Your task to perform on an android device: turn off data saver in the chrome app Image 0: 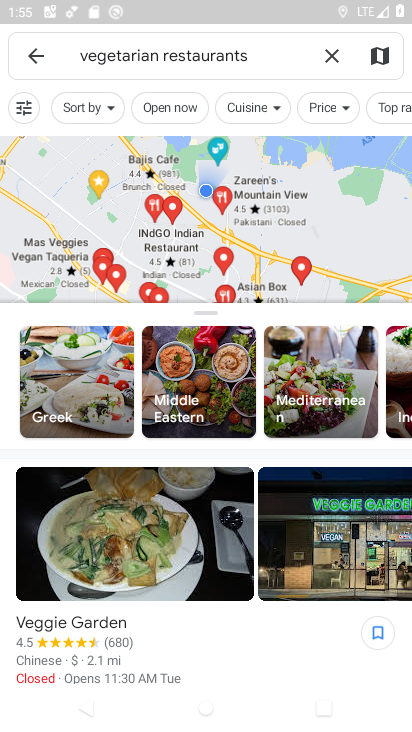
Step 0: press home button
Your task to perform on an android device: turn off data saver in the chrome app Image 1: 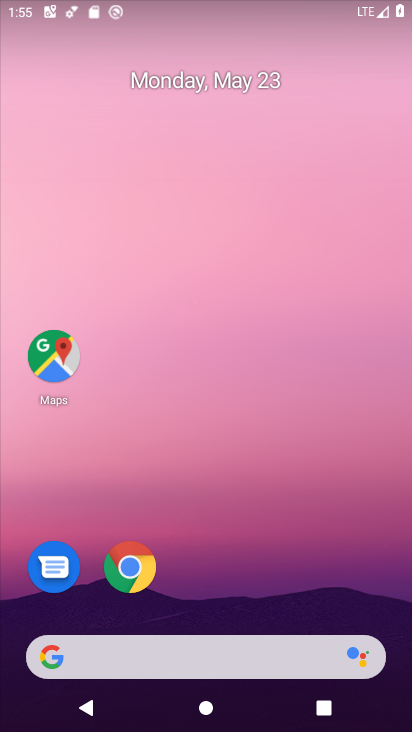
Step 1: drag from (326, 553) to (308, 175)
Your task to perform on an android device: turn off data saver in the chrome app Image 2: 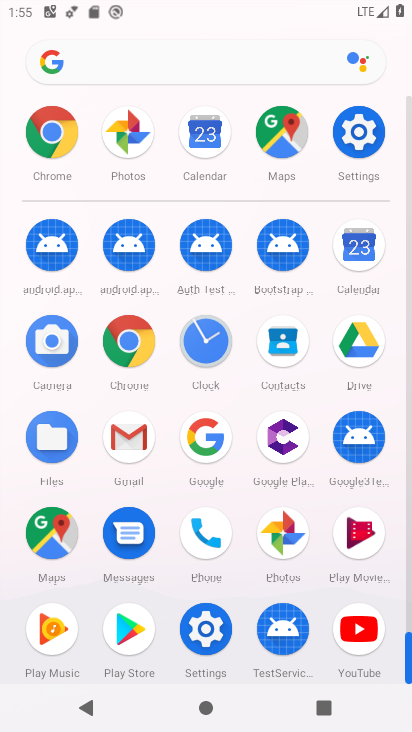
Step 2: click (127, 354)
Your task to perform on an android device: turn off data saver in the chrome app Image 3: 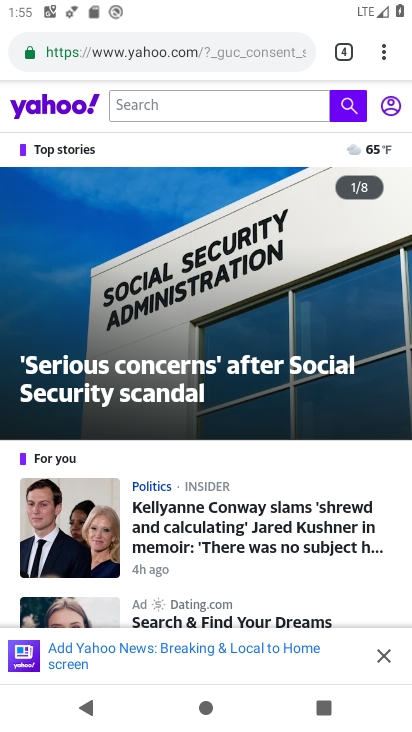
Step 3: click (388, 53)
Your task to perform on an android device: turn off data saver in the chrome app Image 4: 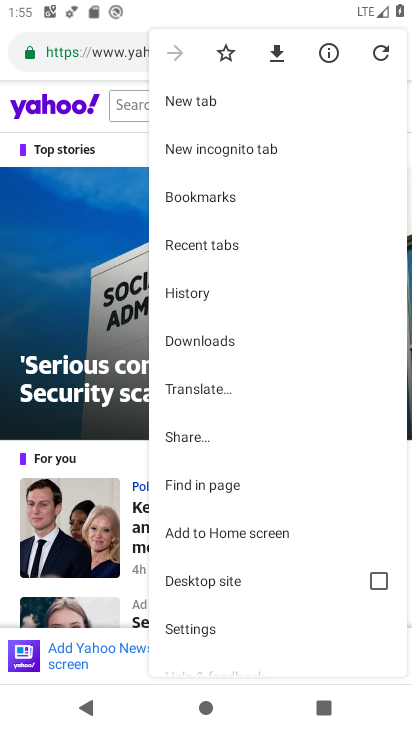
Step 4: click (228, 621)
Your task to perform on an android device: turn off data saver in the chrome app Image 5: 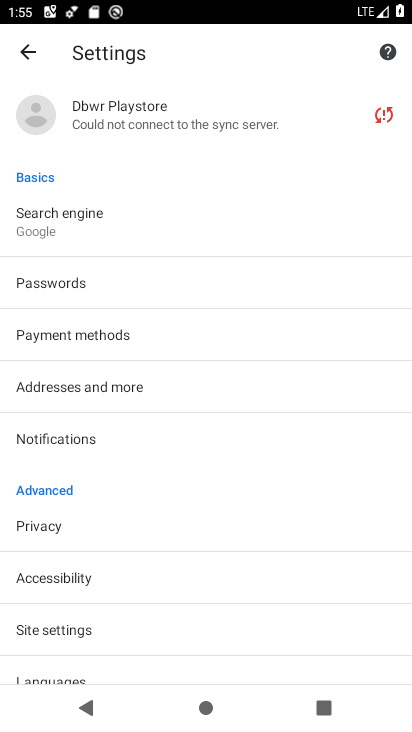
Step 5: drag from (132, 621) to (175, 467)
Your task to perform on an android device: turn off data saver in the chrome app Image 6: 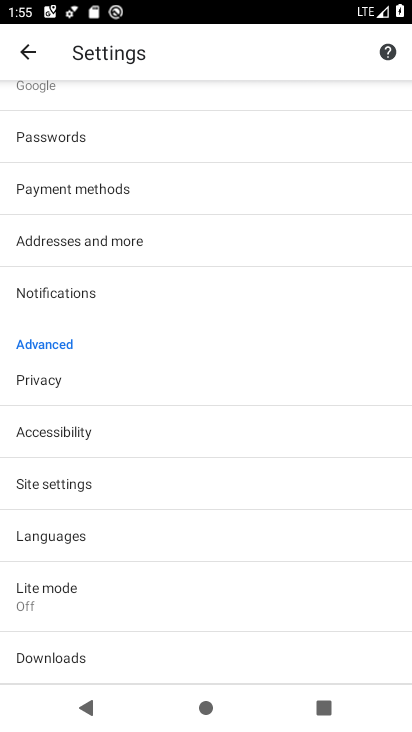
Step 6: click (123, 598)
Your task to perform on an android device: turn off data saver in the chrome app Image 7: 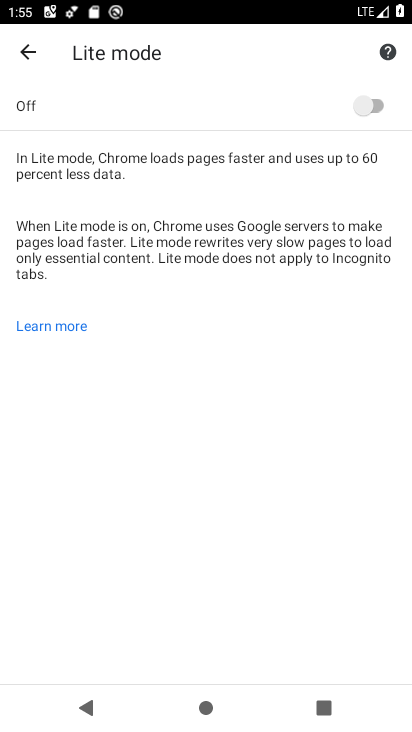
Step 7: task complete